Your task to perform on an android device: Open the phone app and click the voicemail tab. Image 0: 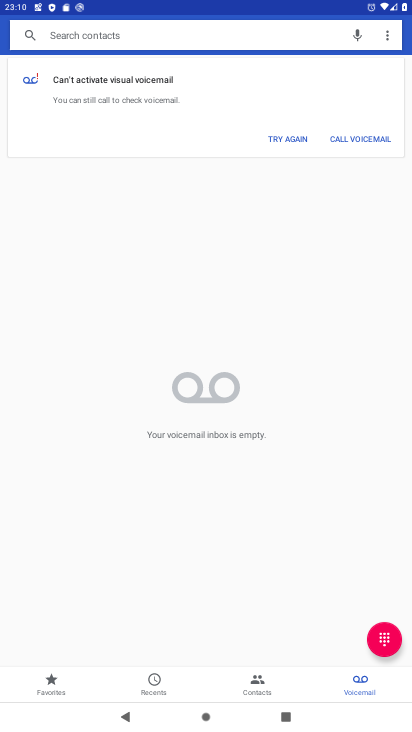
Step 0: press home button
Your task to perform on an android device: Open the phone app and click the voicemail tab. Image 1: 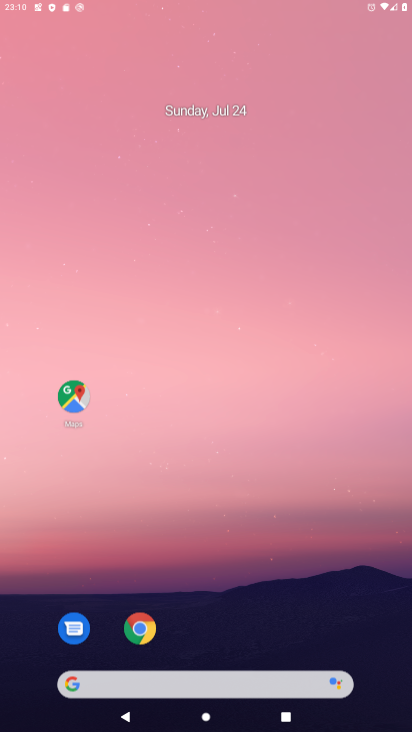
Step 1: drag from (188, 628) to (134, 0)
Your task to perform on an android device: Open the phone app and click the voicemail tab. Image 2: 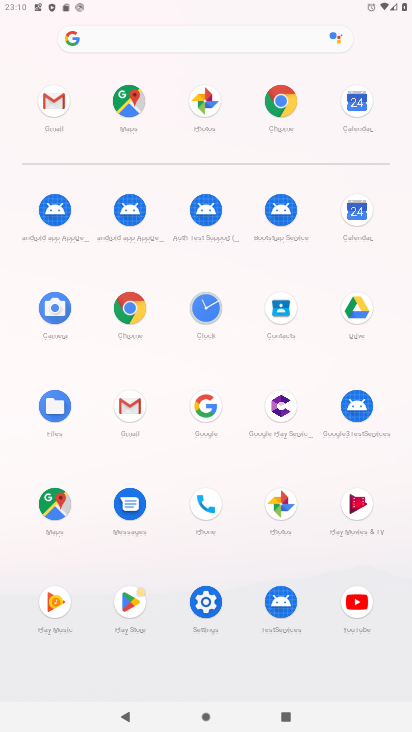
Step 2: click (203, 503)
Your task to perform on an android device: Open the phone app and click the voicemail tab. Image 3: 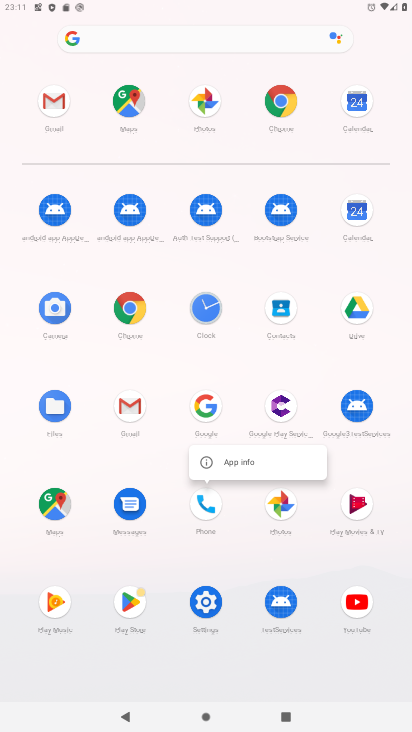
Step 3: click (230, 453)
Your task to perform on an android device: Open the phone app and click the voicemail tab. Image 4: 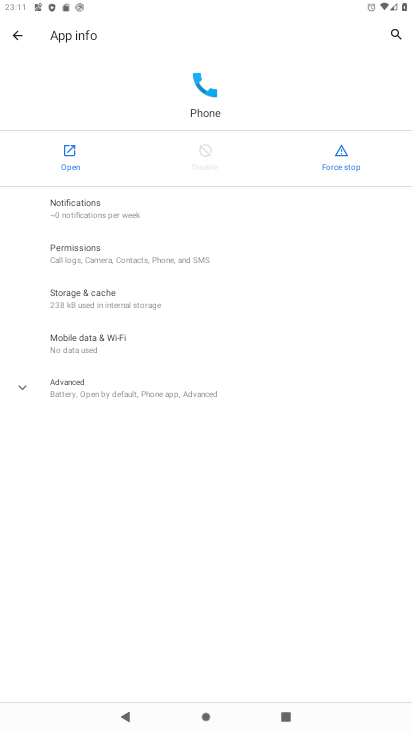
Step 4: click (70, 145)
Your task to perform on an android device: Open the phone app and click the voicemail tab. Image 5: 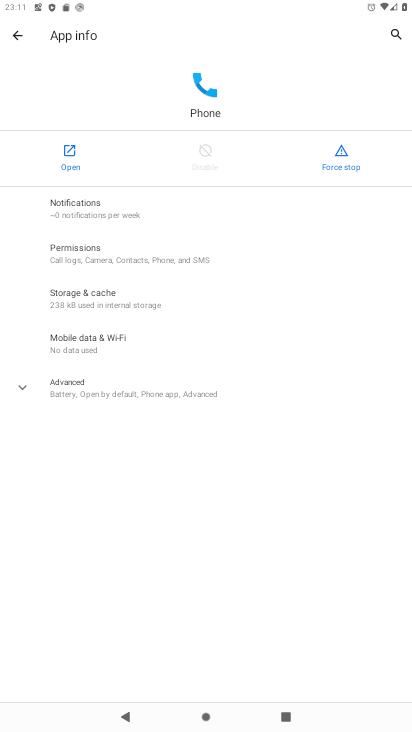
Step 5: click (70, 145)
Your task to perform on an android device: Open the phone app and click the voicemail tab. Image 6: 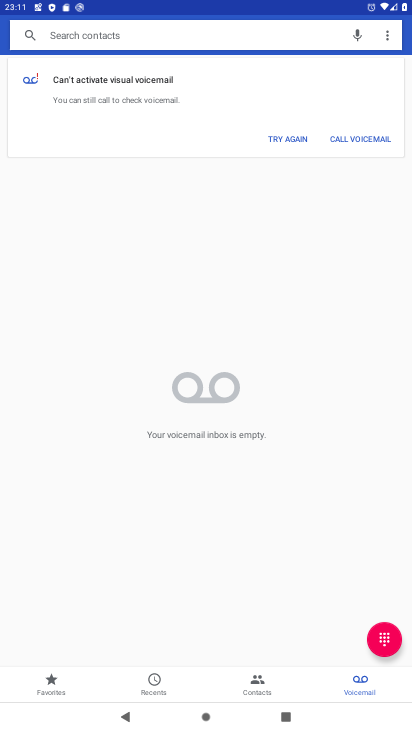
Step 6: click (349, 684)
Your task to perform on an android device: Open the phone app and click the voicemail tab. Image 7: 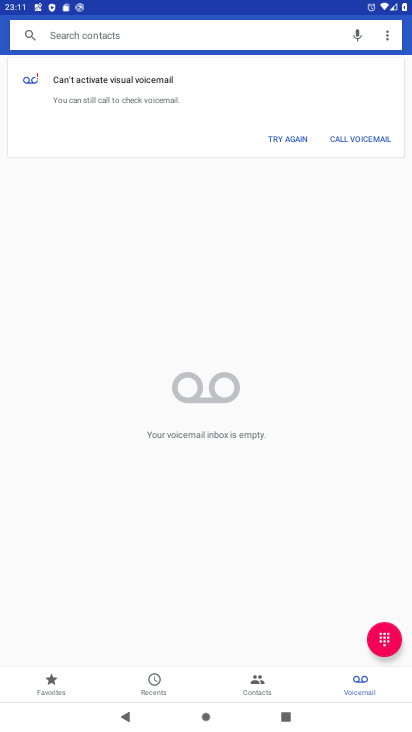
Step 7: task complete